Your task to perform on an android device: open the mobile data screen to see how much data has been used Image 0: 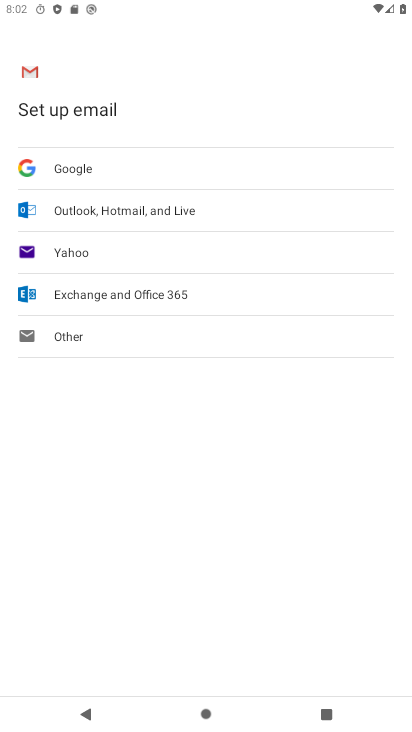
Step 0: click (125, 603)
Your task to perform on an android device: open the mobile data screen to see how much data has been used Image 1: 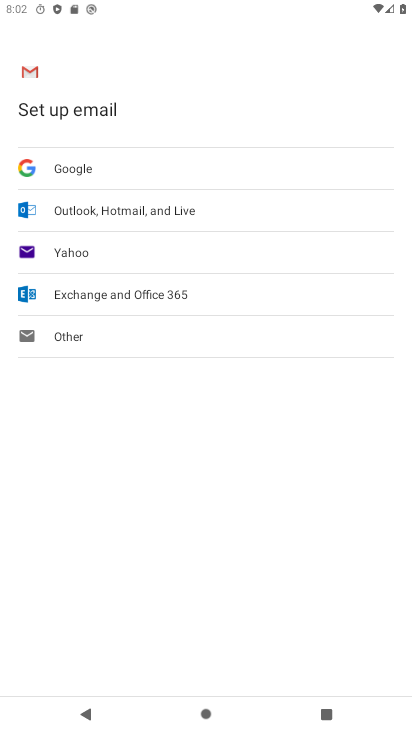
Step 1: press home button
Your task to perform on an android device: open the mobile data screen to see how much data has been used Image 2: 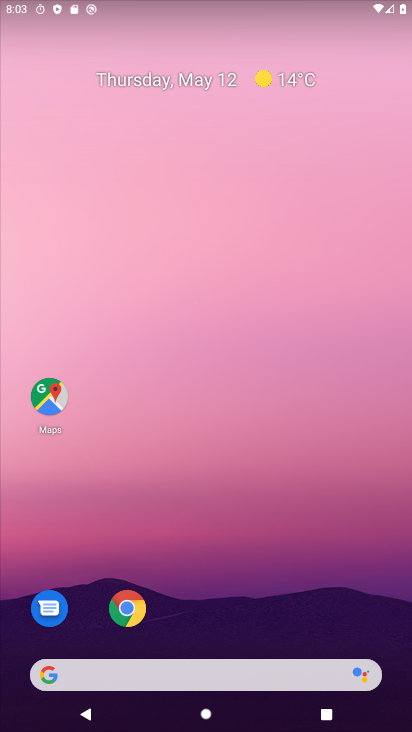
Step 2: drag from (327, 519) to (318, 110)
Your task to perform on an android device: open the mobile data screen to see how much data has been used Image 3: 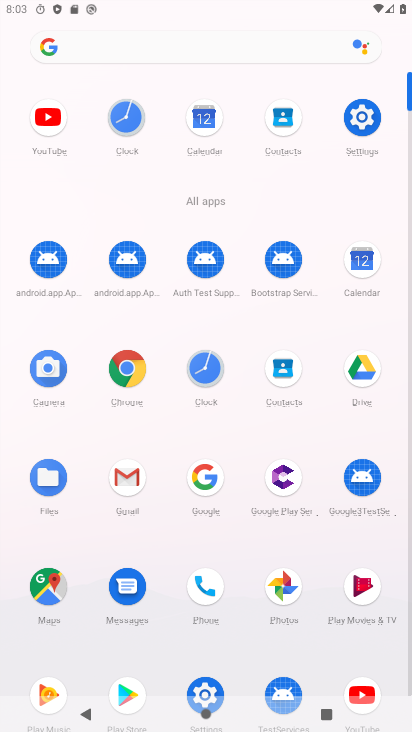
Step 3: click (361, 111)
Your task to perform on an android device: open the mobile data screen to see how much data has been used Image 4: 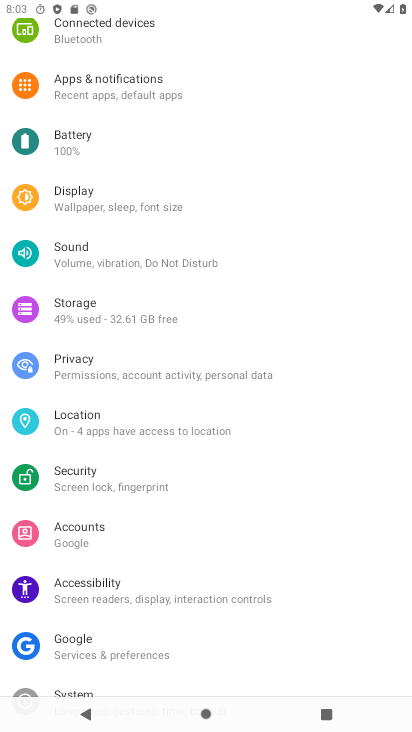
Step 4: drag from (197, 72) to (241, 324)
Your task to perform on an android device: open the mobile data screen to see how much data has been used Image 5: 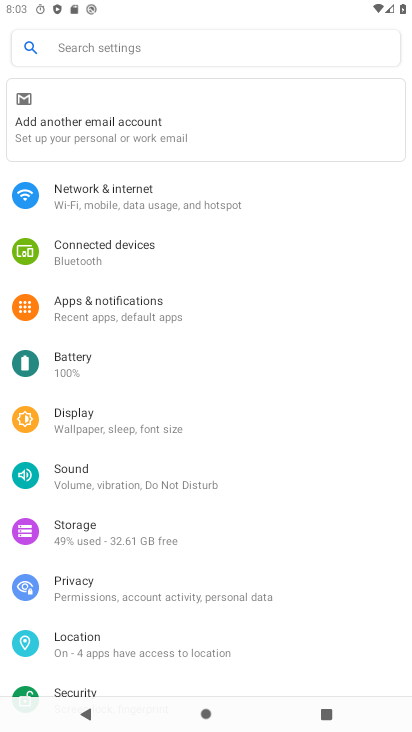
Step 5: click (129, 212)
Your task to perform on an android device: open the mobile data screen to see how much data has been used Image 6: 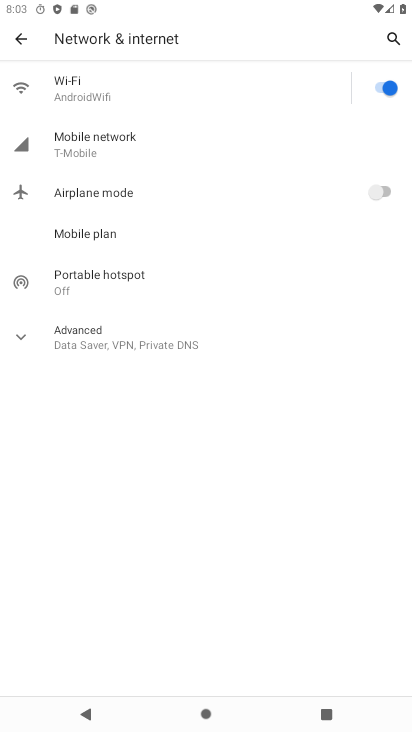
Step 6: click (107, 145)
Your task to perform on an android device: open the mobile data screen to see how much data has been used Image 7: 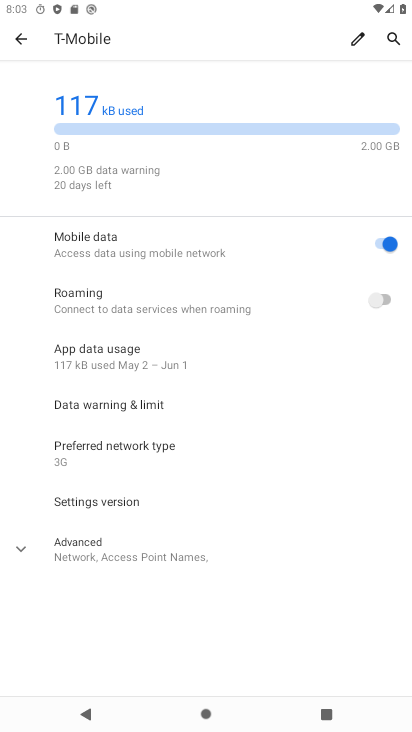
Step 7: click (152, 354)
Your task to perform on an android device: open the mobile data screen to see how much data has been used Image 8: 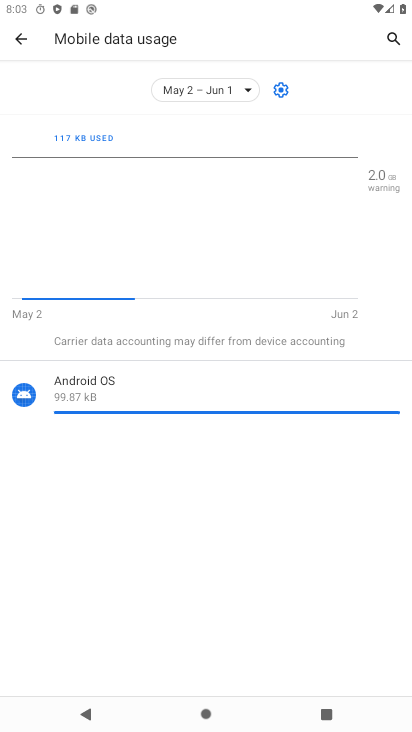
Step 8: task complete